Your task to perform on an android device: Open Google Maps Image 0: 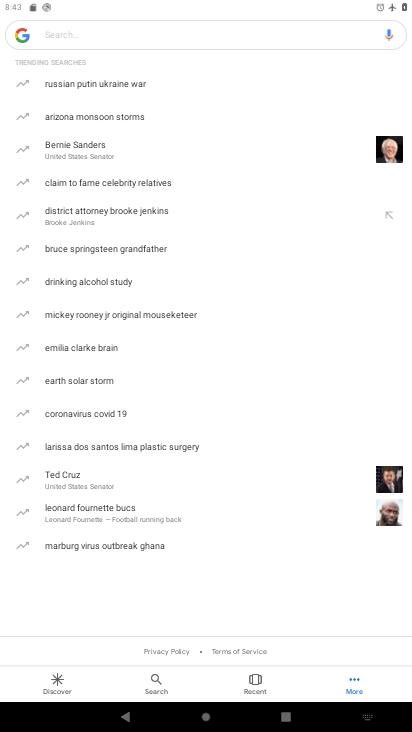
Step 0: press home button
Your task to perform on an android device: Open Google Maps Image 1: 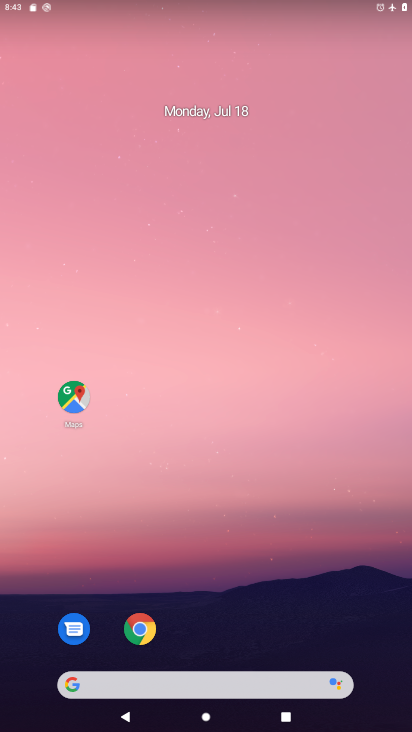
Step 1: click (81, 389)
Your task to perform on an android device: Open Google Maps Image 2: 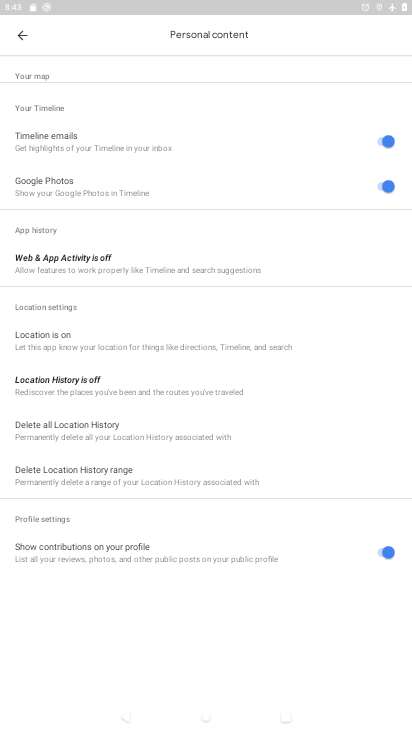
Step 2: click (18, 32)
Your task to perform on an android device: Open Google Maps Image 3: 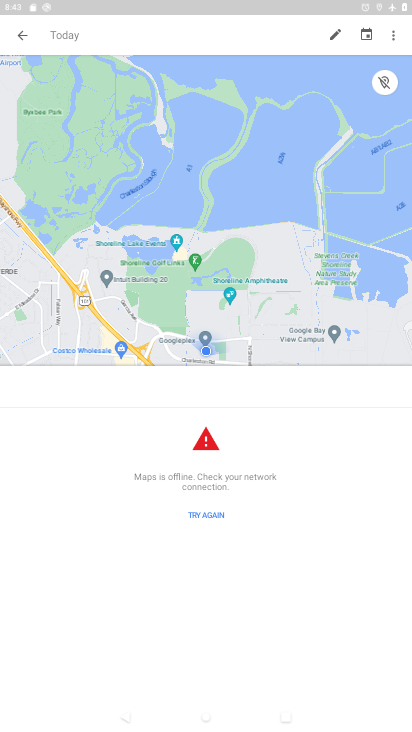
Step 3: click (25, 32)
Your task to perform on an android device: Open Google Maps Image 4: 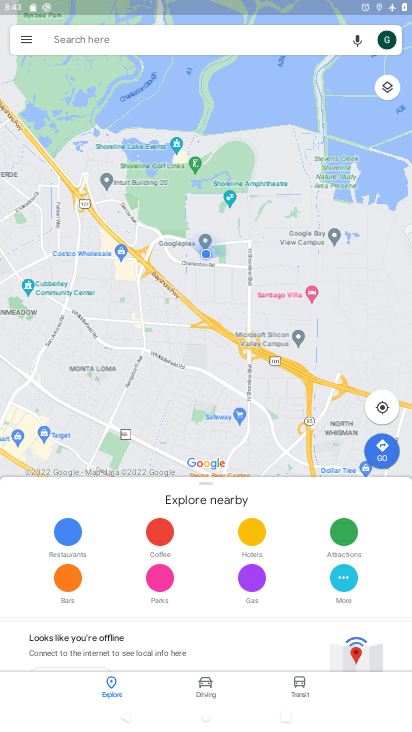
Step 4: task complete